Your task to perform on an android device: What's the weather? Image 0: 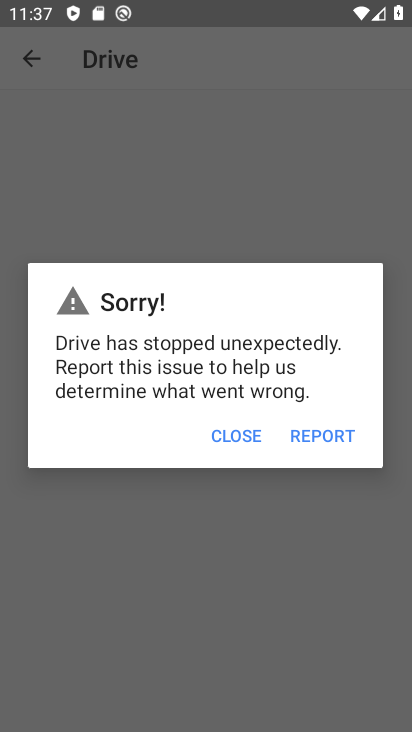
Step 0: press home button
Your task to perform on an android device: What's the weather? Image 1: 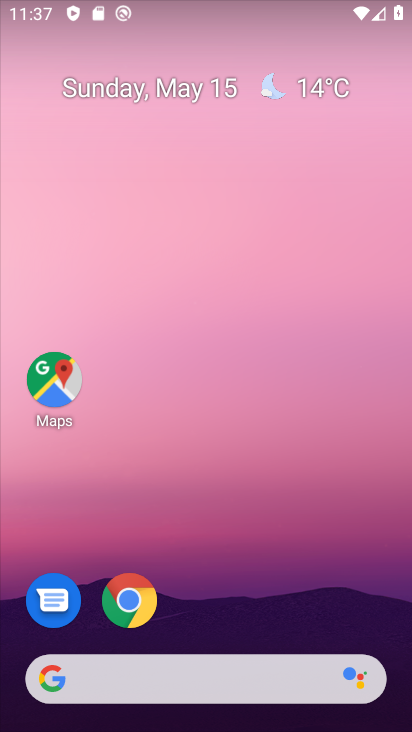
Step 1: click (305, 89)
Your task to perform on an android device: What's the weather? Image 2: 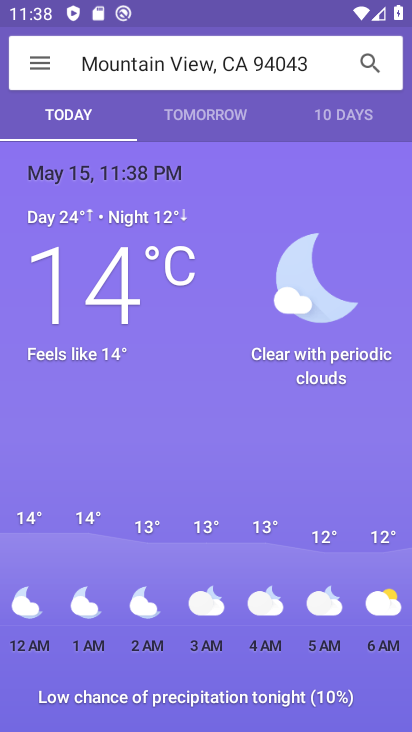
Step 2: task complete